Your task to perform on an android device: toggle priority inbox in the gmail app Image 0: 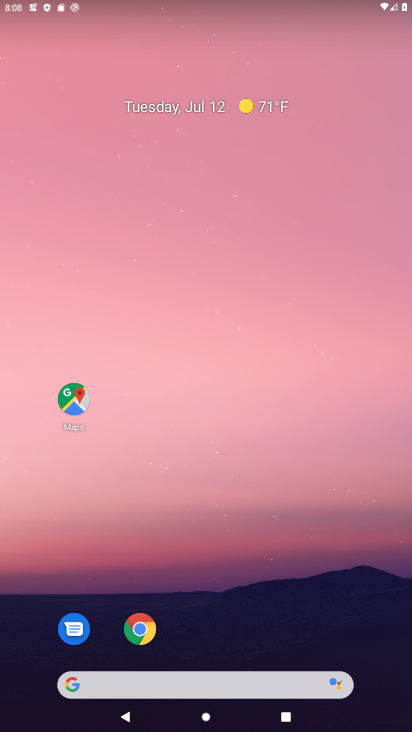
Step 0: drag from (380, 698) to (351, 146)
Your task to perform on an android device: toggle priority inbox in the gmail app Image 1: 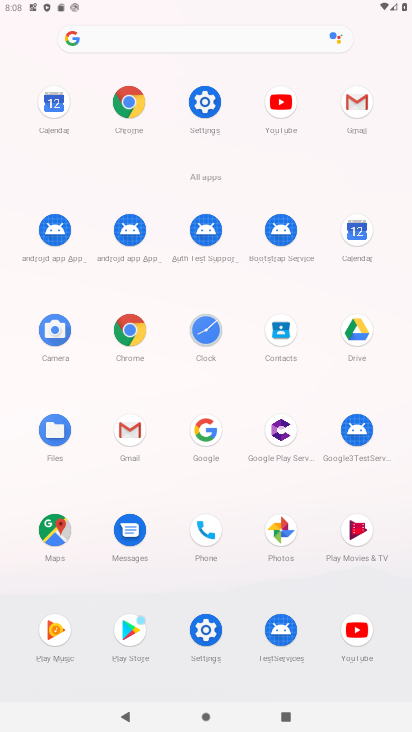
Step 1: click (355, 104)
Your task to perform on an android device: toggle priority inbox in the gmail app Image 2: 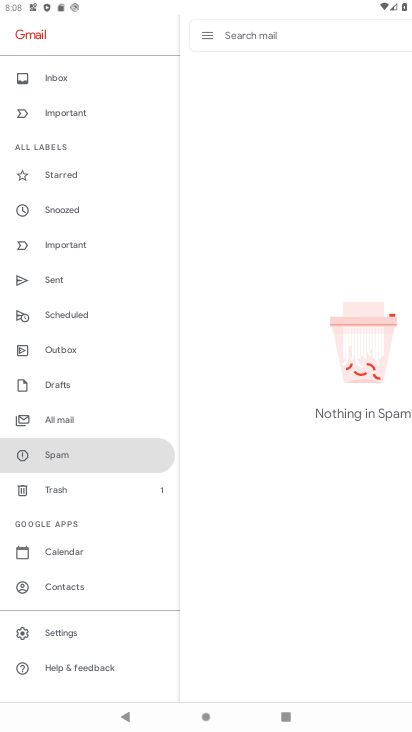
Step 2: click (58, 631)
Your task to perform on an android device: toggle priority inbox in the gmail app Image 3: 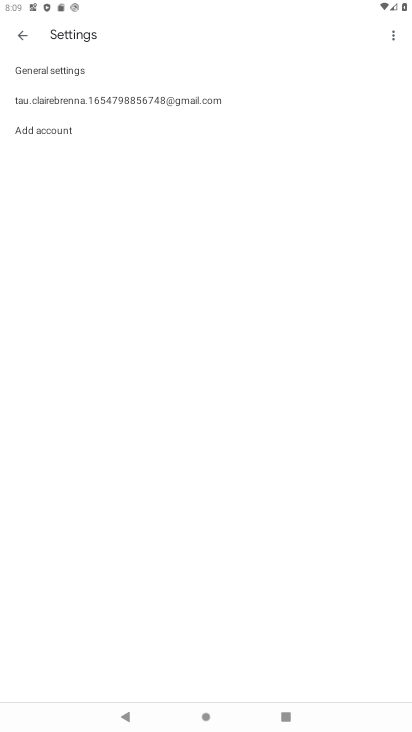
Step 3: click (42, 99)
Your task to perform on an android device: toggle priority inbox in the gmail app Image 4: 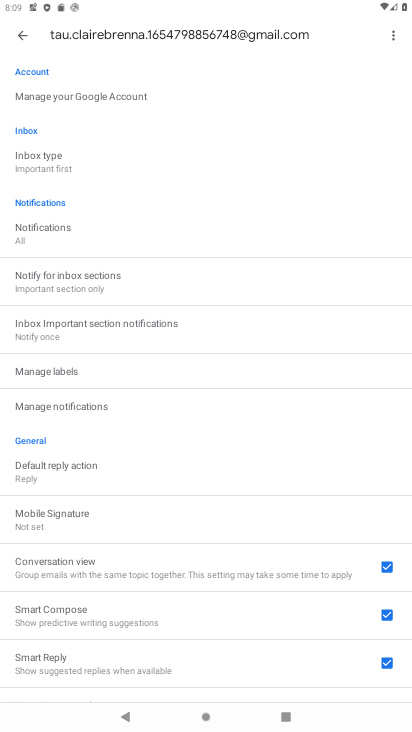
Step 4: click (43, 159)
Your task to perform on an android device: toggle priority inbox in the gmail app Image 5: 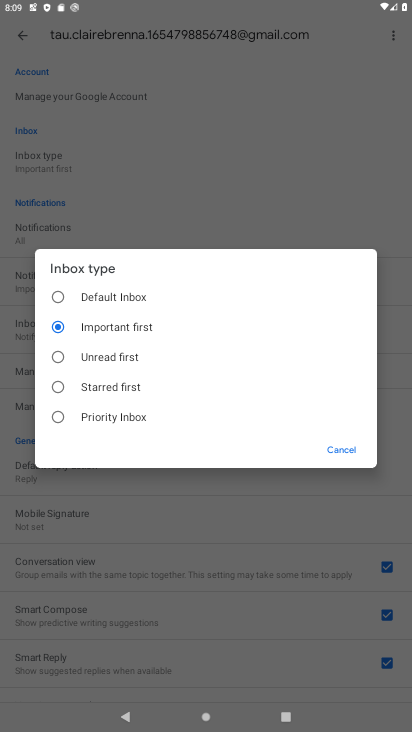
Step 5: click (86, 419)
Your task to perform on an android device: toggle priority inbox in the gmail app Image 6: 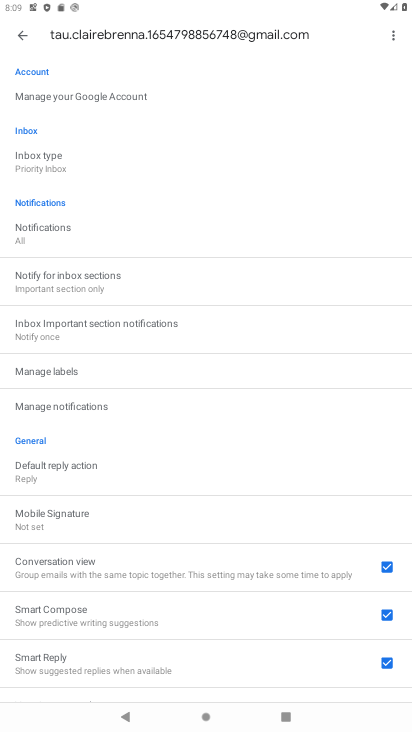
Step 6: task complete